Your task to perform on an android device: Search for "acer nitro" on target.com, select the first entry, add it to the cart, then select checkout. Image 0: 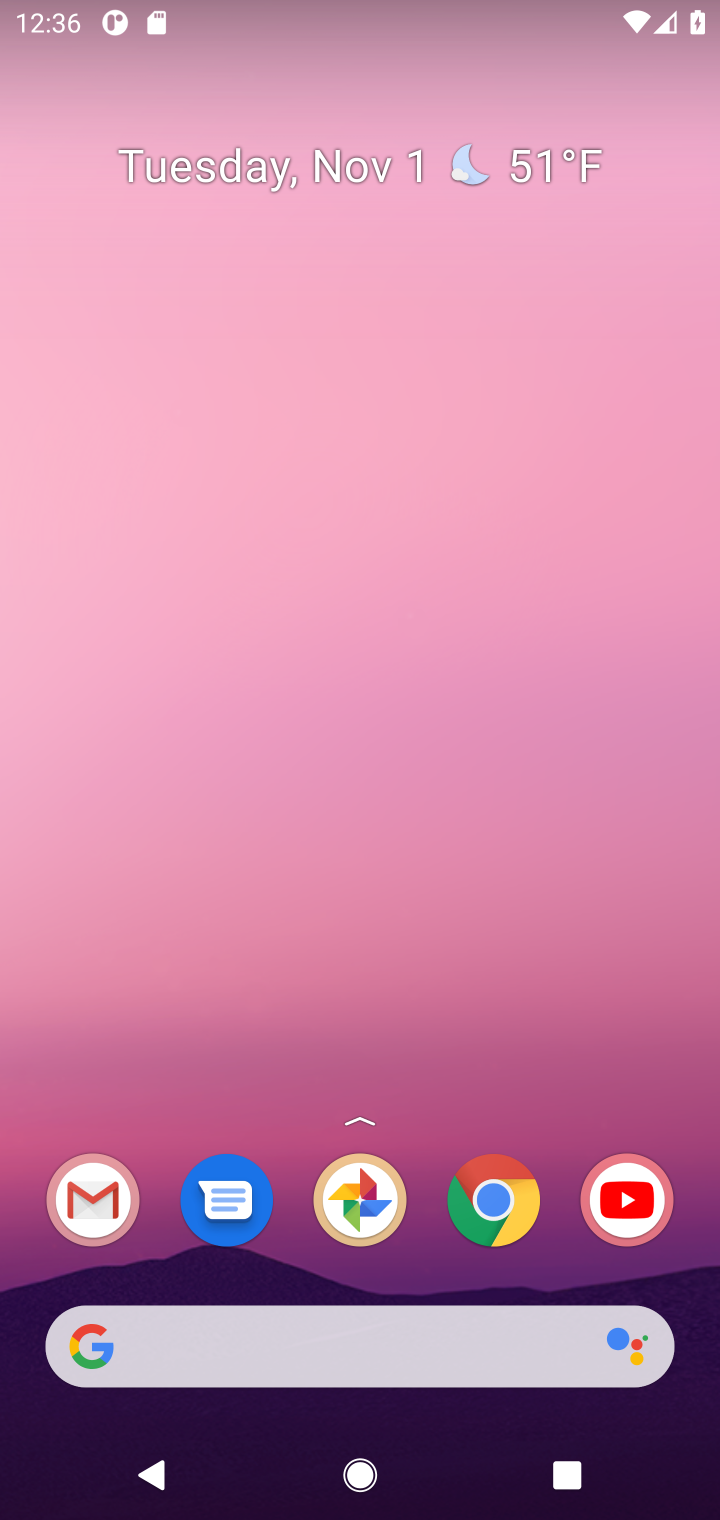
Step 0: click (494, 1208)
Your task to perform on an android device: Search for "acer nitro" on target.com, select the first entry, add it to the cart, then select checkout. Image 1: 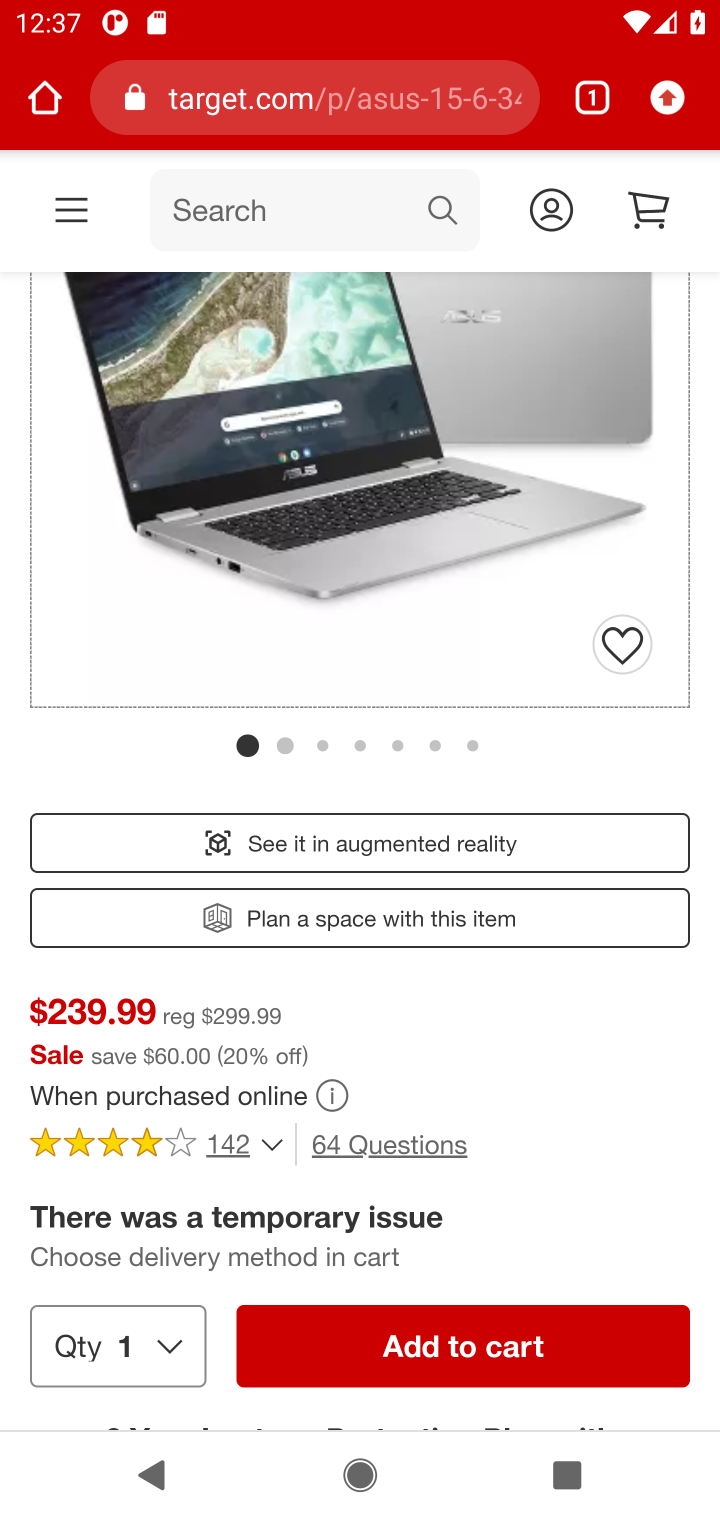
Step 1: drag from (389, 623) to (434, 1187)
Your task to perform on an android device: Search for "acer nitro" on target.com, select the first entry, add it to the cart, then select checkout. Image 2: 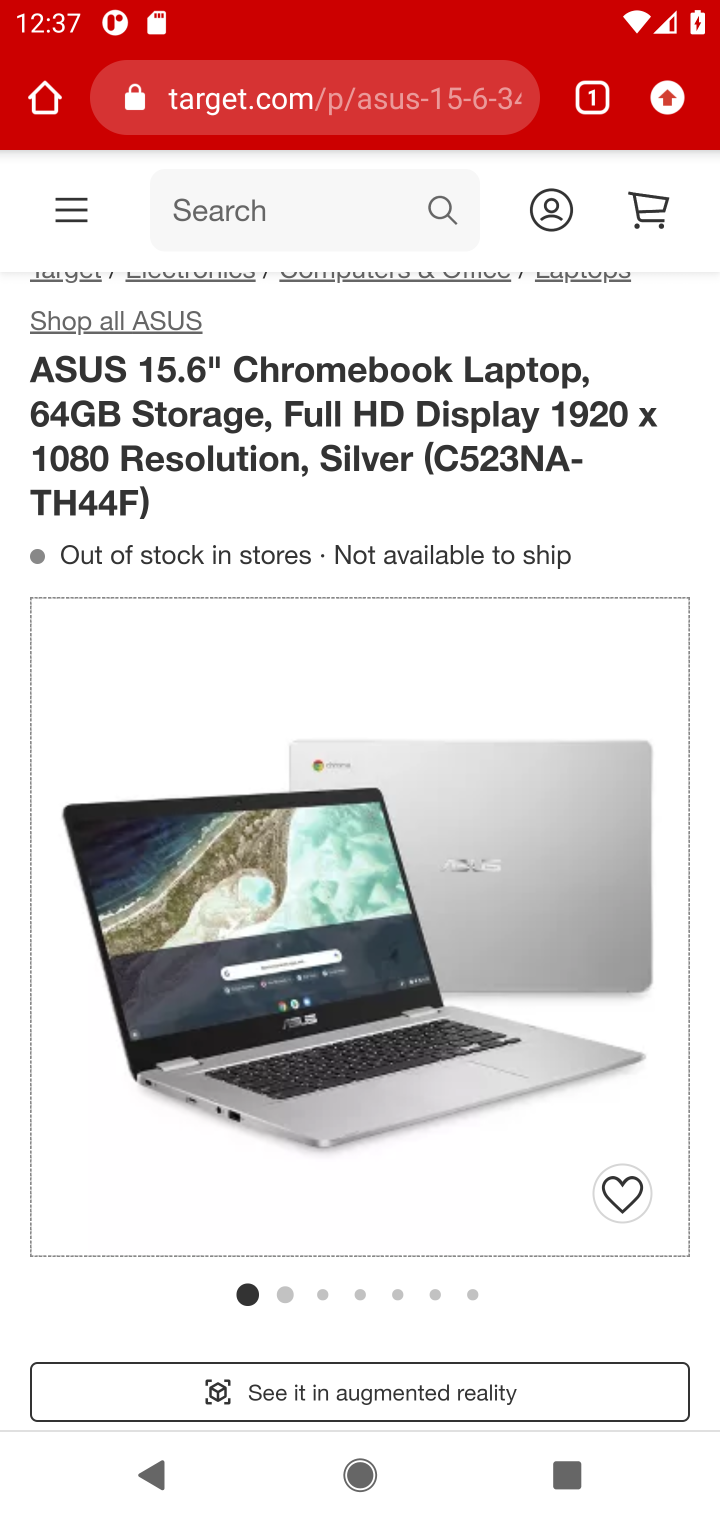
Step 2: click (443, 204)
Your task to perform on an android device: Search for "acer nitro" on target.com, select the first entry, add it to the cart, then select checkout. Image 3: 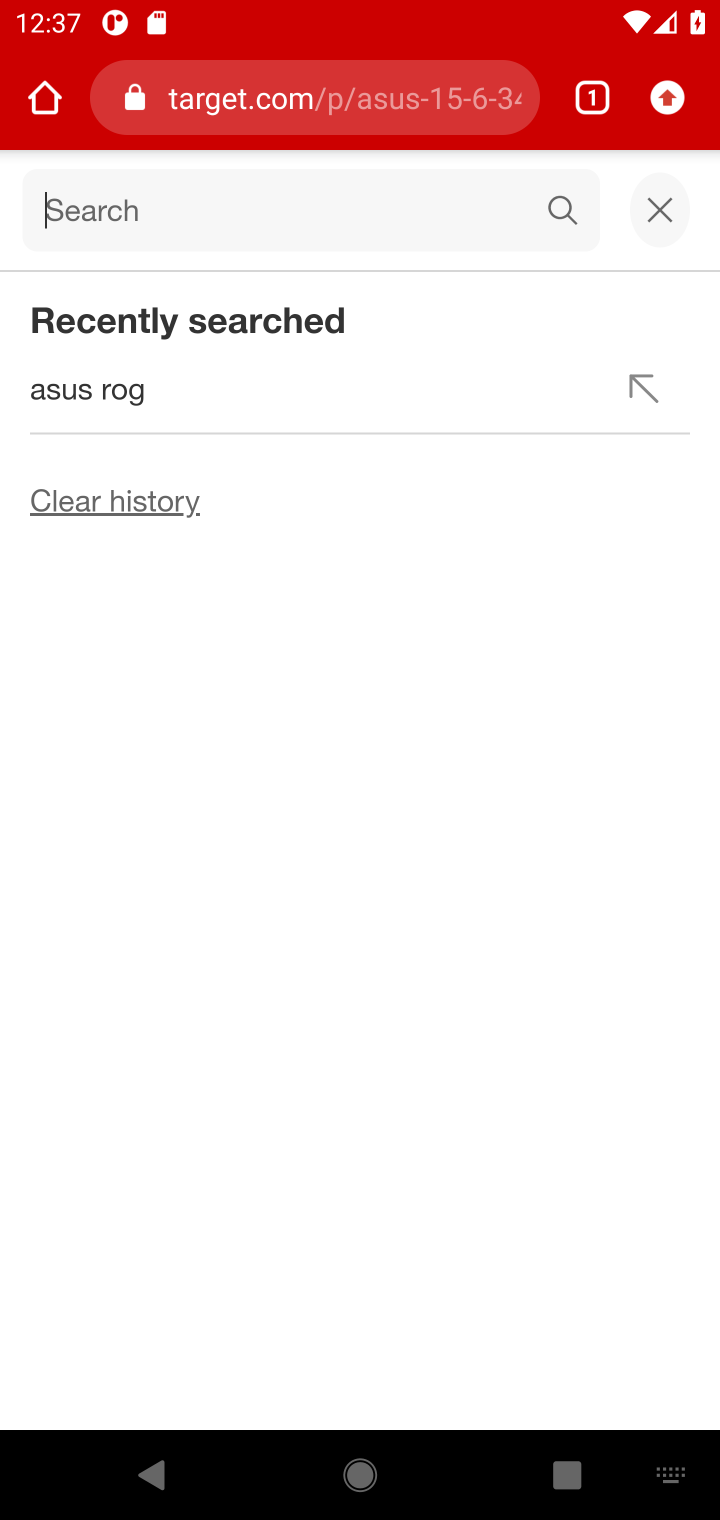
Step 3: type "acer nitro"
Your task to perform on an android device: Search for "acer nitro" on target.com, select the first entry, add it to the cart, then select checkout. Image 4: 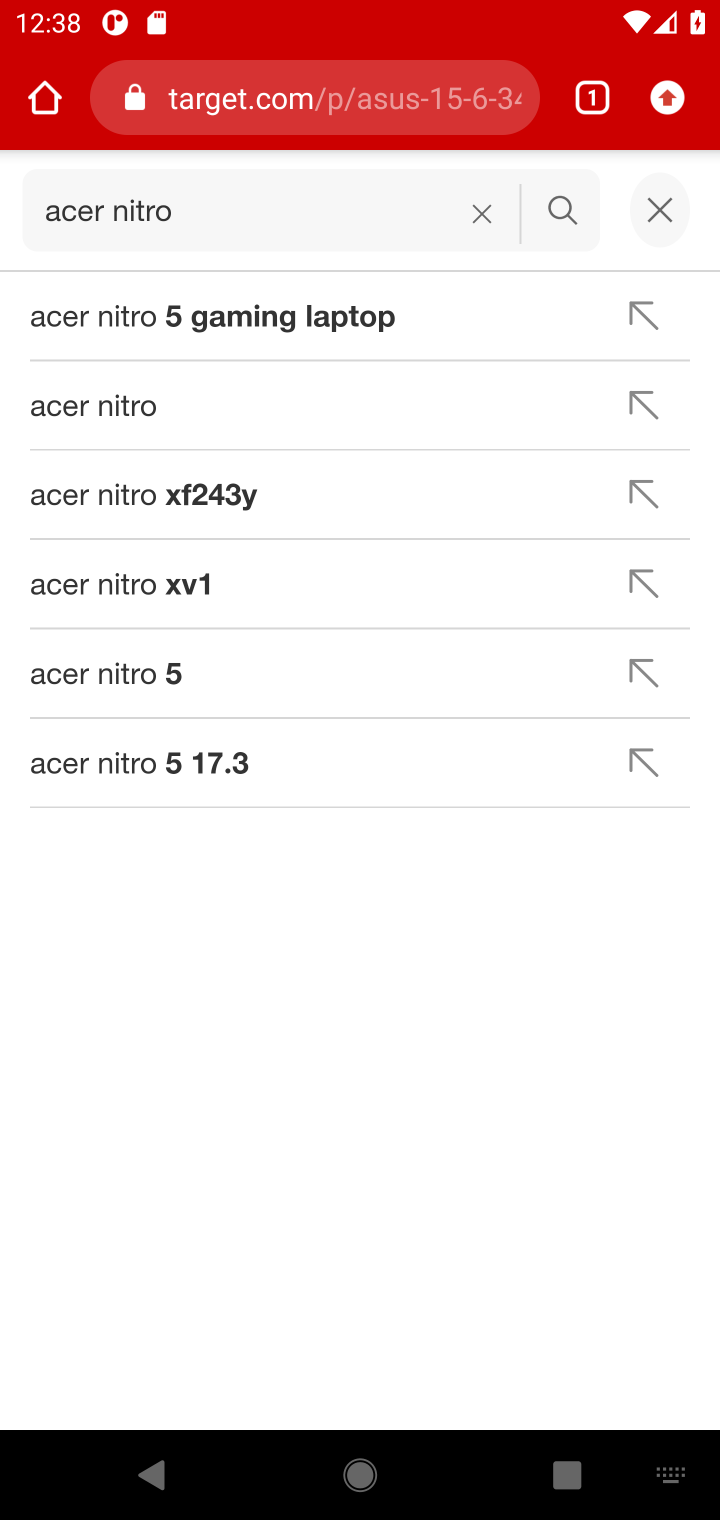
Step 4: click (111, 408)
Your task to perform on an android device: Search for "acer nitro" on target.com, select the first entry, add it to the cart, then select checkout. Image 5: 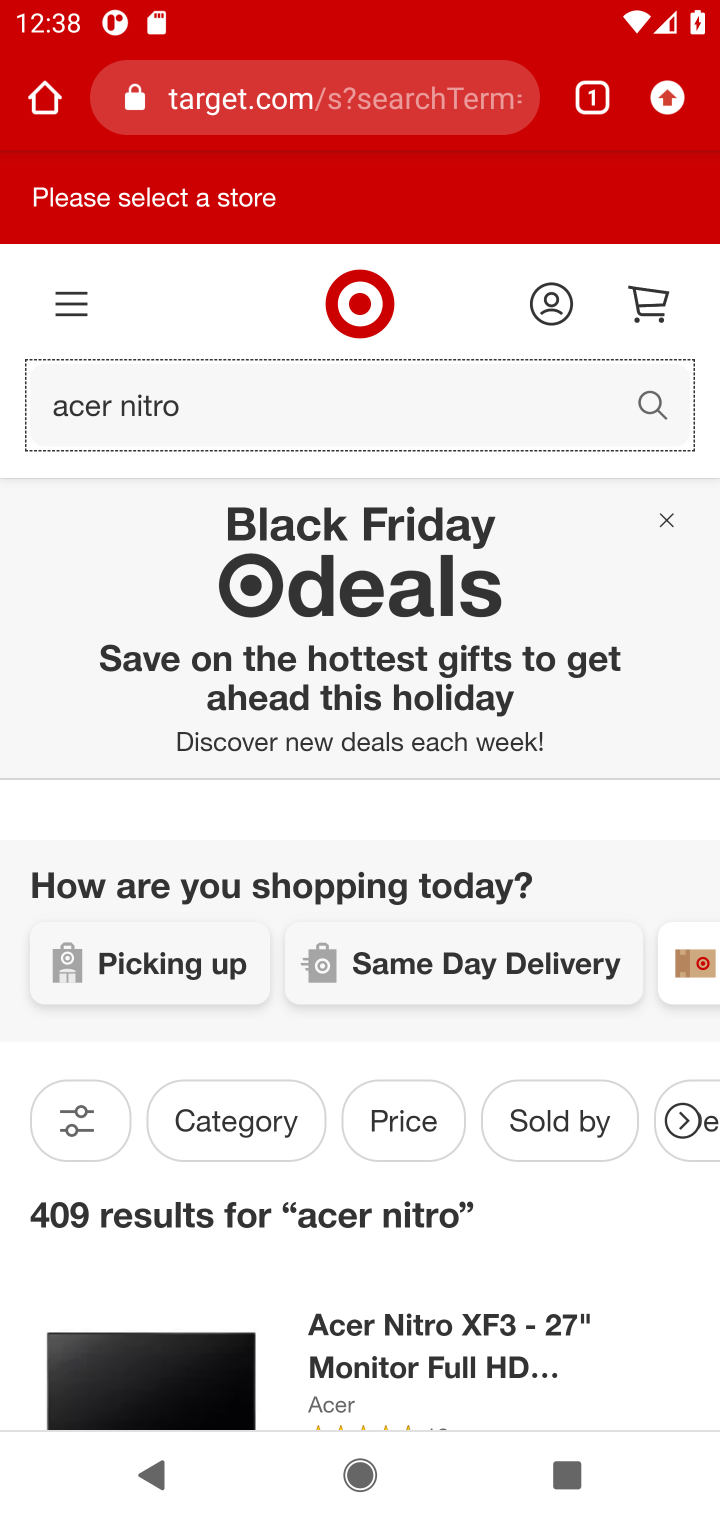
Step 5: drag from (396, 1082) to (416, 609)
Your task to perform on an android device: Search for "acer nitro" on target.com, select the first entry, add it to the cart, then select checkout. Image 6: 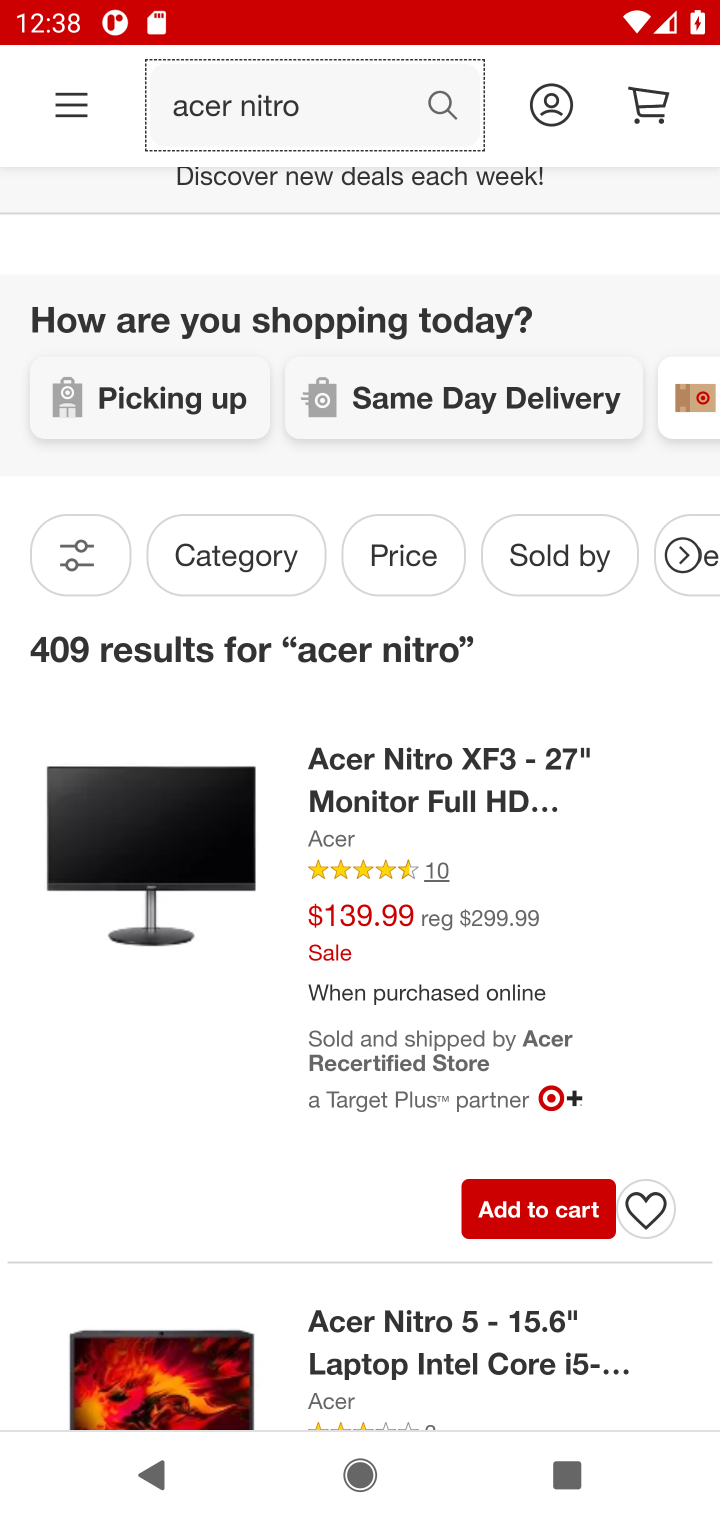
Step 6: click (270, 919)
Your task to perform on an android device: Search for "acer nitro" on target.com, select the first entry, add it to the cart, then select checkout. Image 7: 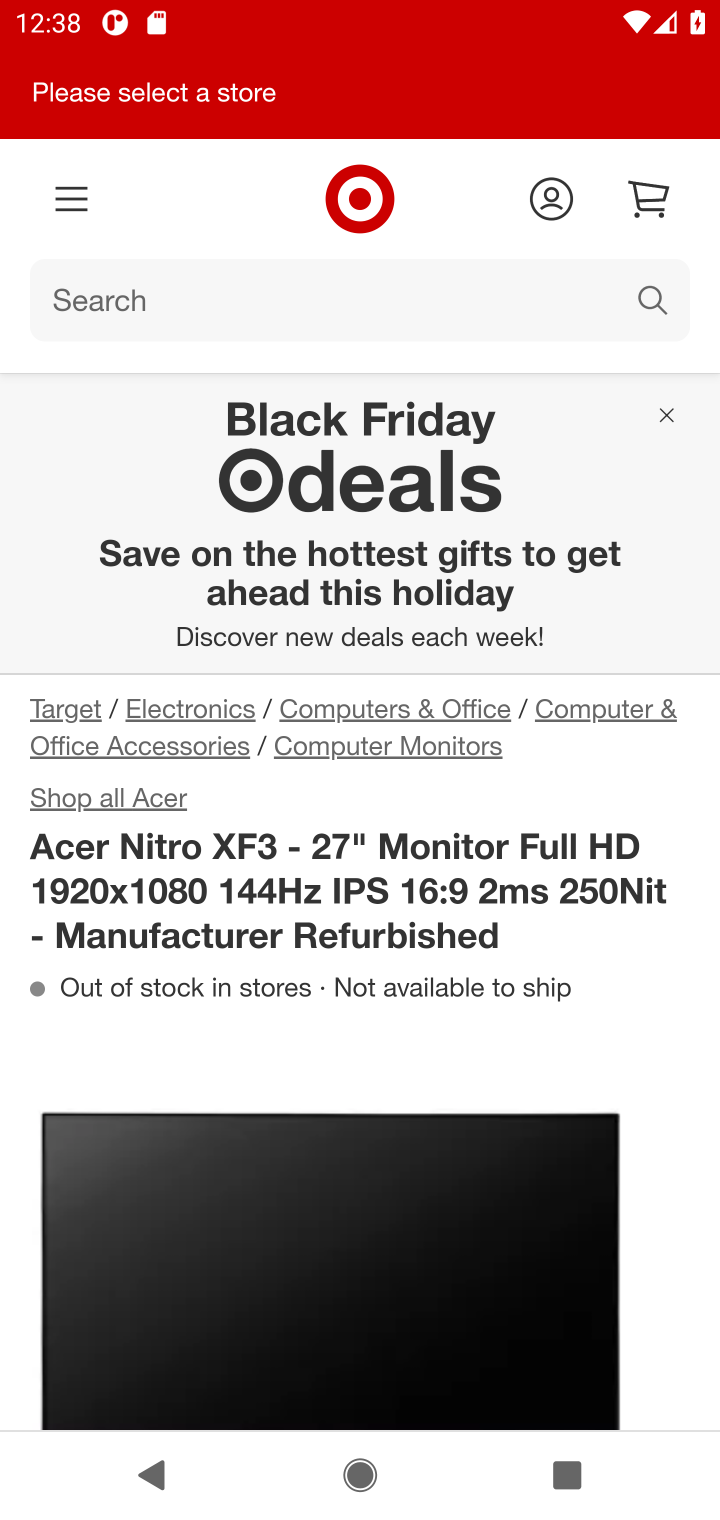
Step 7: drag from (288, 1008) to (341, 354)
Your task to perform on an android device: Search for "acer nitro" on target.com, select the first entry, add it to the cart, then select checkout. Image 8: 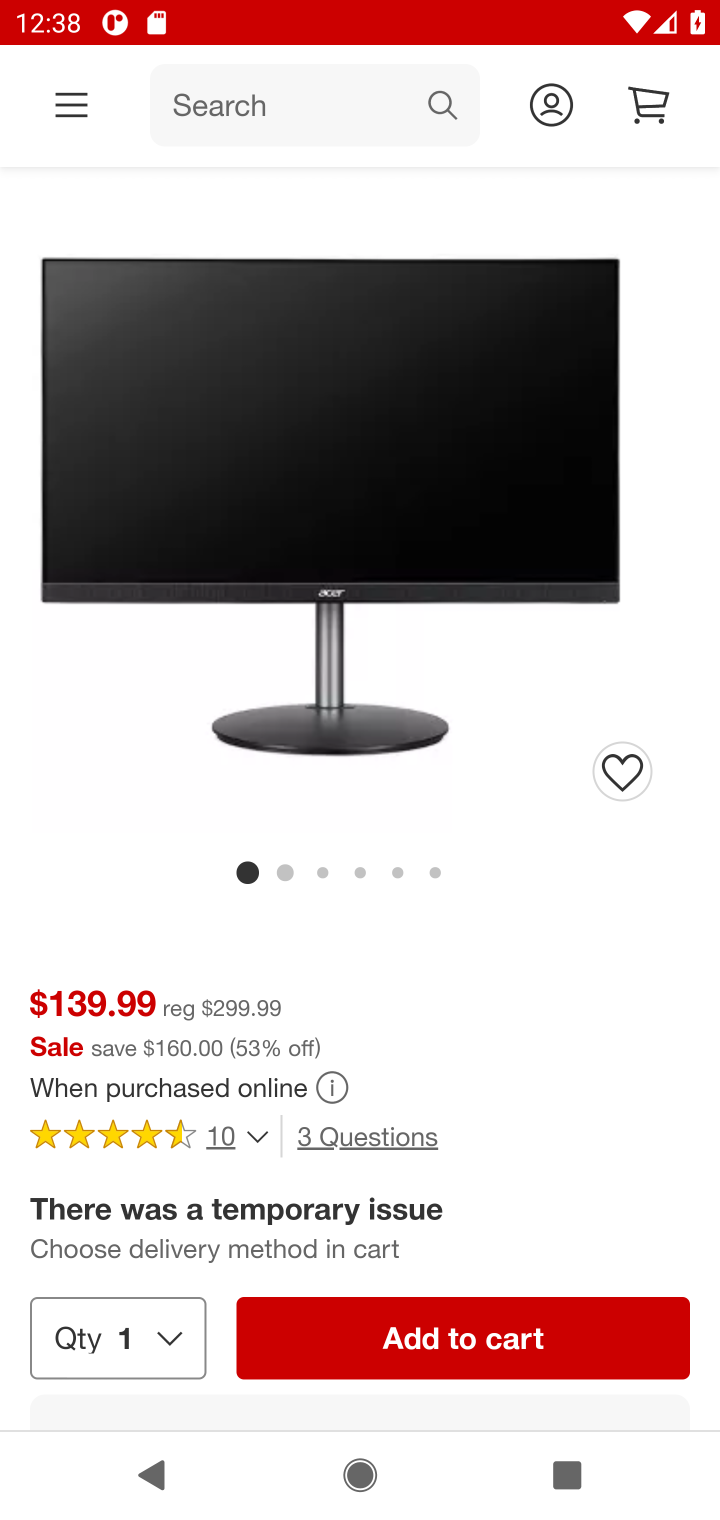
Step 8: drag from (417, 1070) to (428, 692)
Your task to perform on an android device: Search for "acer nitro" on target.com, select the first entry, add it to the cart, then select checkout. Image 9: 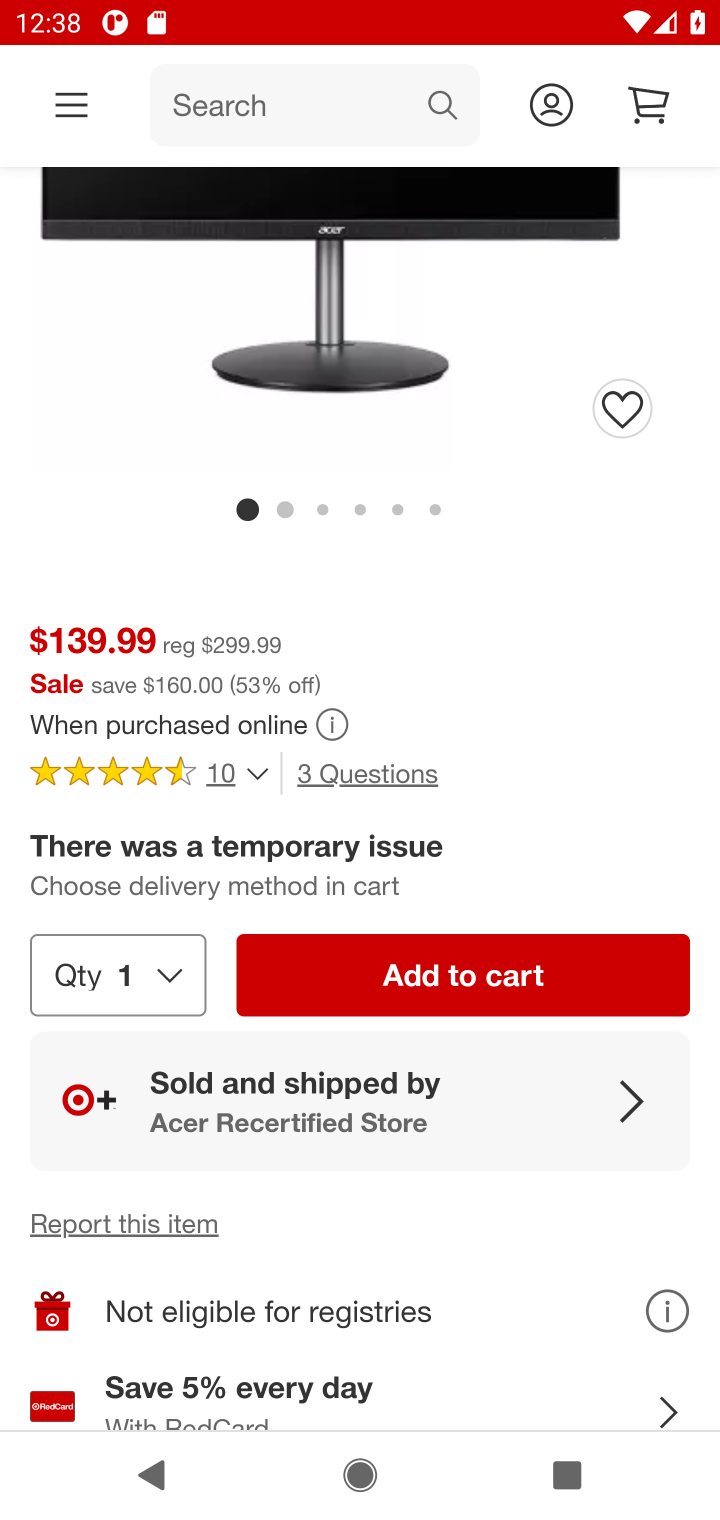
Step 9: click (444, 962)
Your task to perform on an android device: Search for "acer nitro" on target.com, select the first entry, add it to the cart, then select checkout. Image 10: 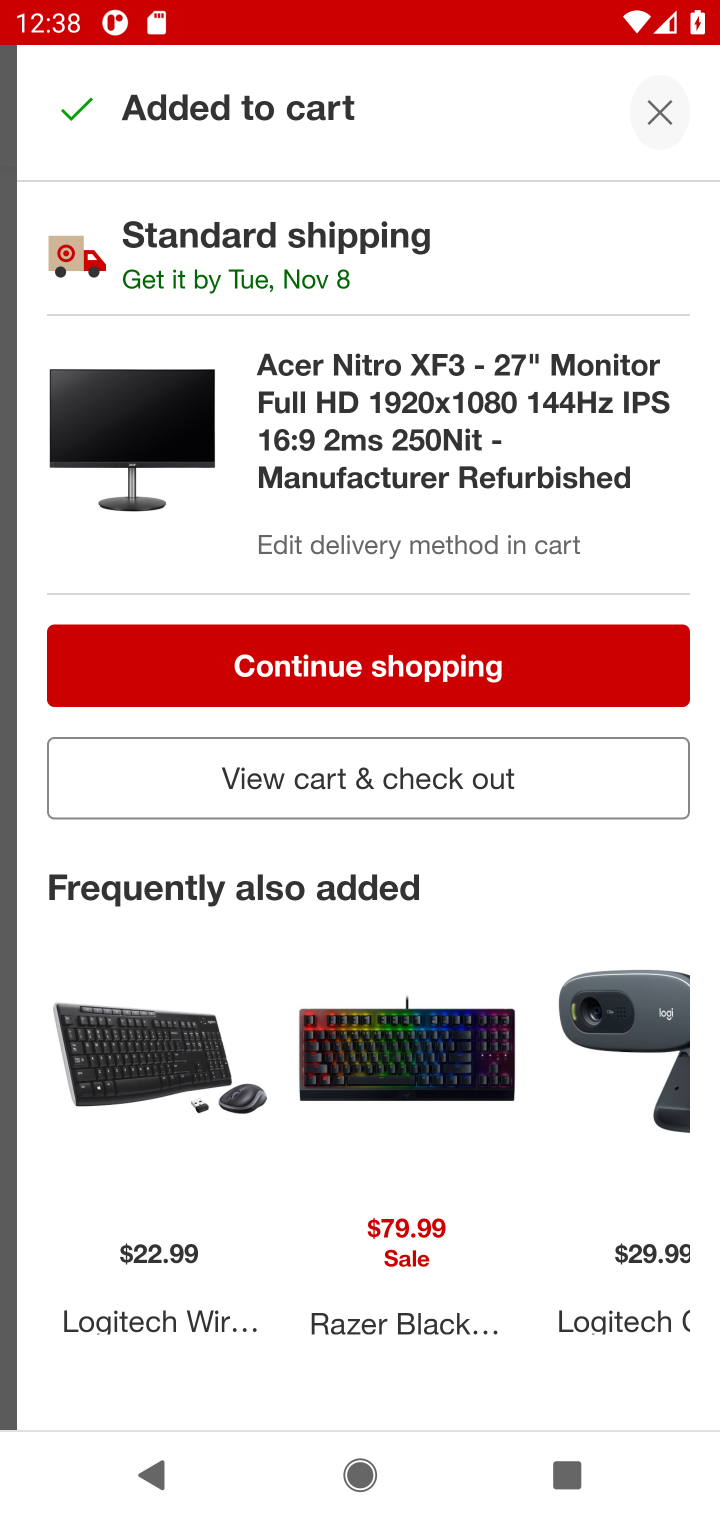
Step 10: click (364, 782)
Your task to perform on an android device: Search for "acer nitro" on target.com, select the first entry, add it to the cart, then select checkout. Image 11: 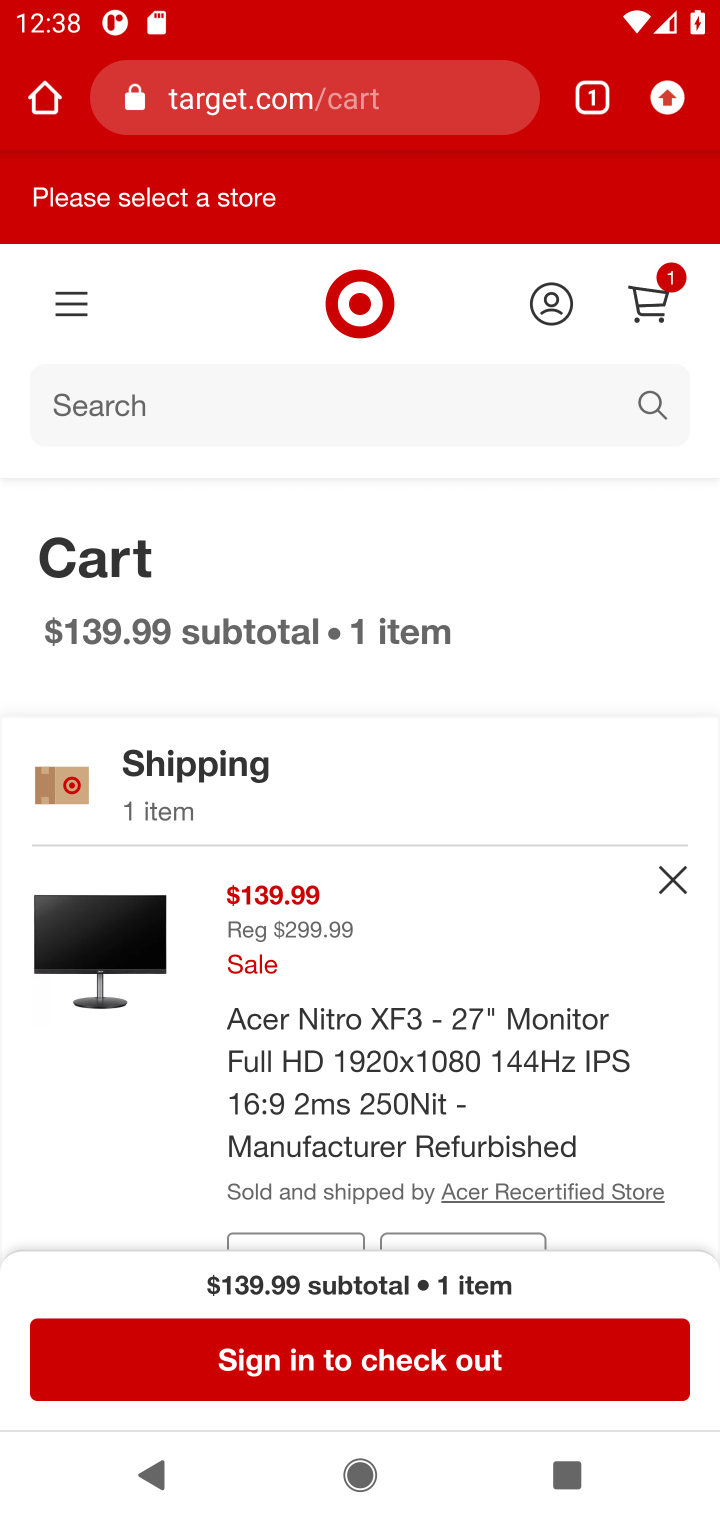
Step 11: click (446, 1370)
Your task to perform on an android device: Search for "acer nitro" on target.com, select the first entry, add it to the cart, then select checkout. Image 12: 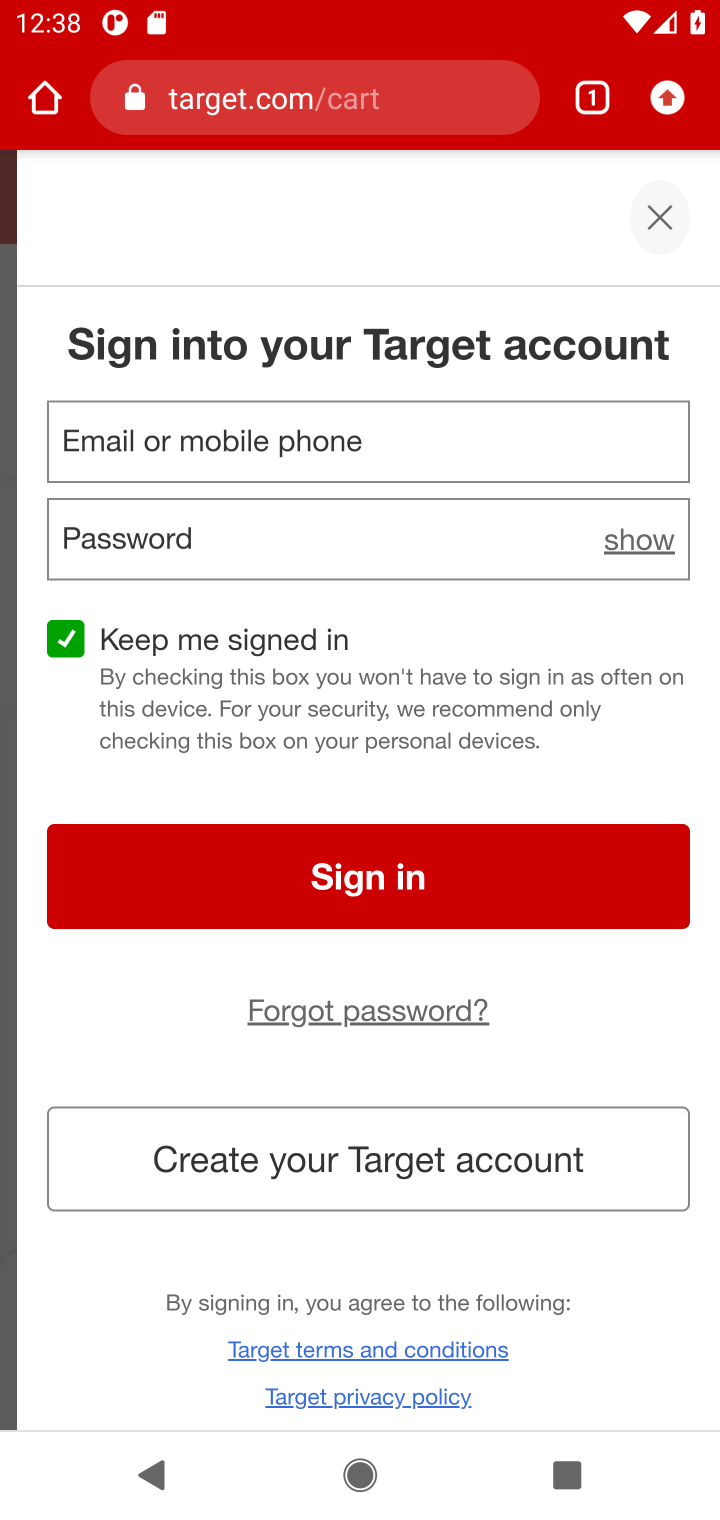
Step 12: task complete